Your task to perform on an android device: remove spam from my inbox in the gmail app Image 0: 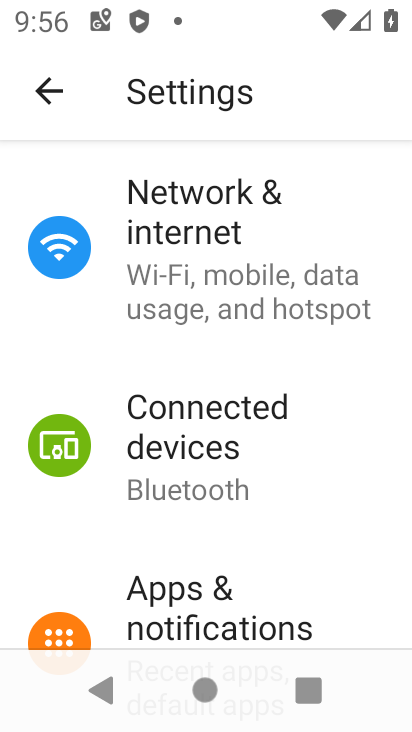
Step 0: press home button
Your task to perform on an android device: remove spam from my inbox in the gmail app Image 1: 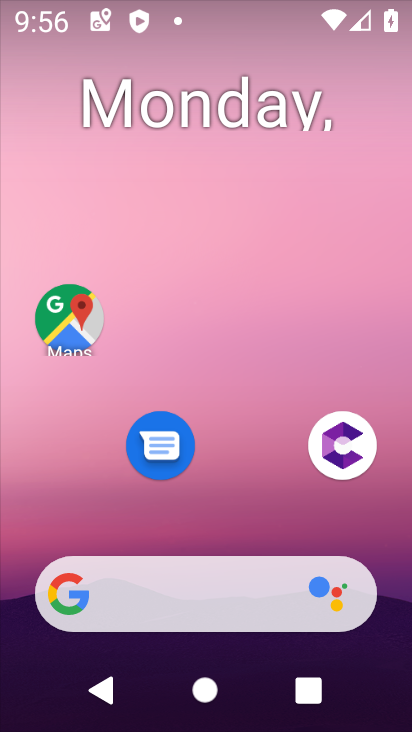
Step 1: drag from (244, 436) to (211, 176)
Your task to perform on an android device: remove spam from my inbox in the gmail app Image 2: 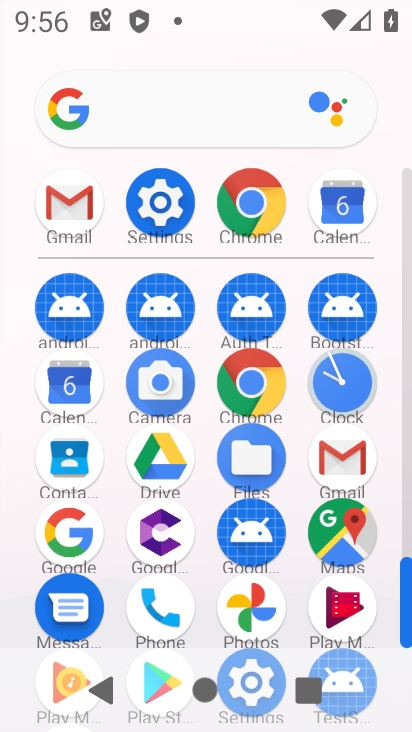
Step 2: click (70, 209)
Your task to perform on an android device: remove spam from my inbox in the gmail app Image 3: 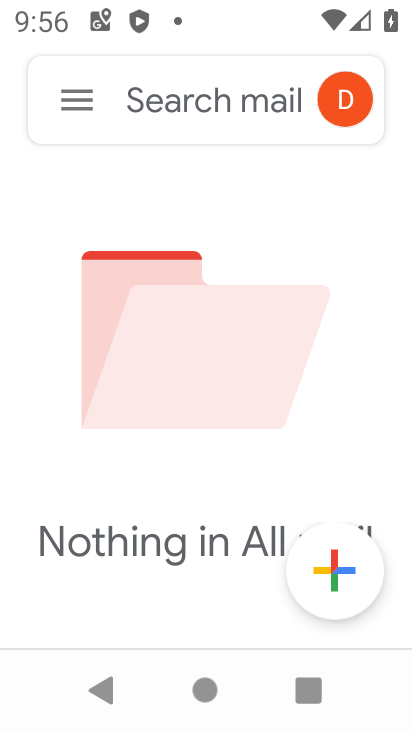
Step 3: click (70, 111)
Your task to perform on an android device: remove spam from my inbox in the gmail app Image 4: 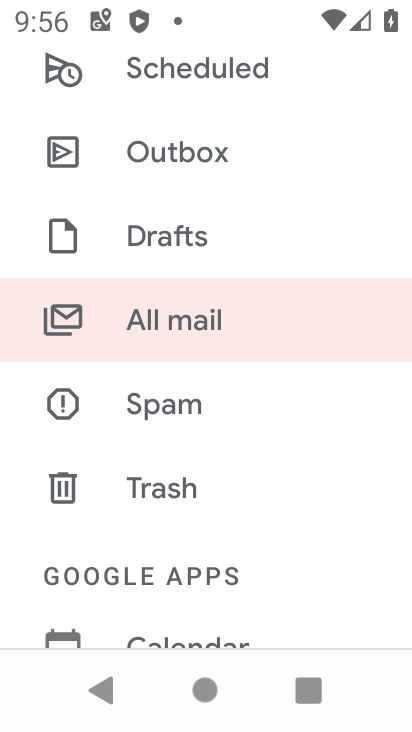
Step 4: click (169, 420)
Your task to perform on an android device: remove spam from my inbox in the gmail app Image 5: 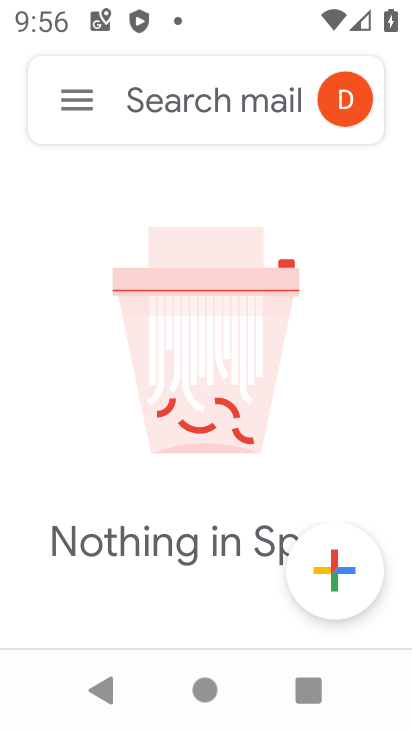
Step 5: task complete